Your task to perform on an android device: Go to display settings Image 0: 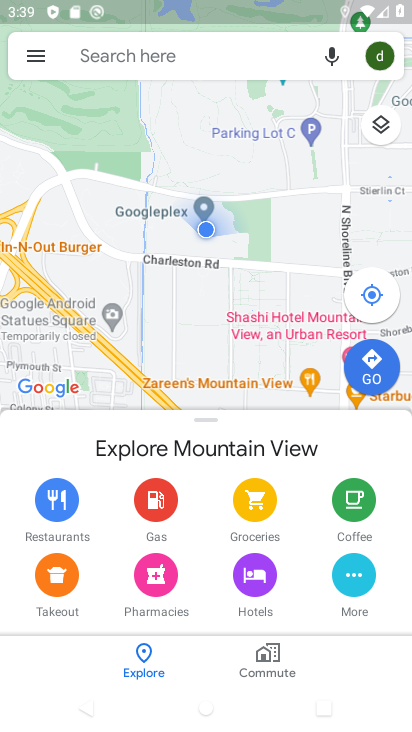
Step 0: press back button
Your task to perform on an android device: Go to display settings Image 1: 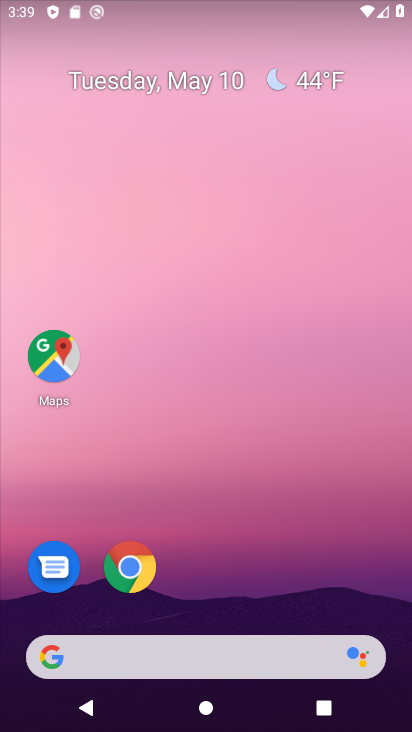
Step 1: drag from (263, 529) to (210, 111)
Your task to perform on an android device: Go to display settings Image 2: 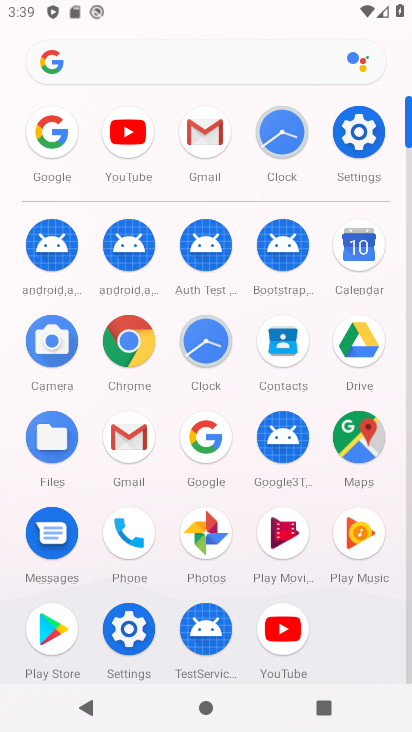
Step 2: click (361, 130)
Your task to perform on an android device: Go to display settings Image 3: 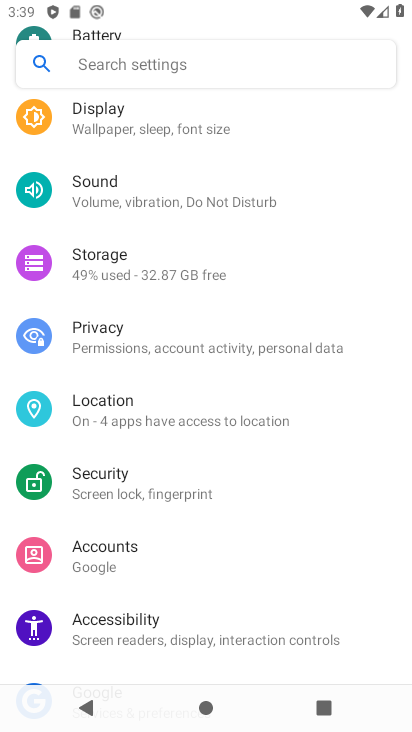
Step 3: click (119, 123)
Your task to perform on an android device: Go to display settings Image 4: 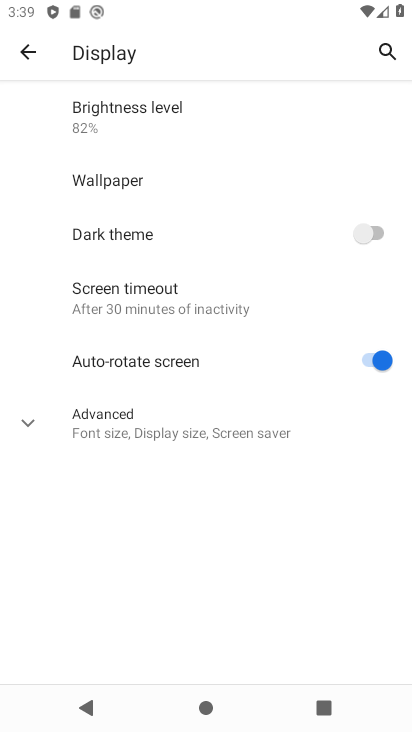
Step 4: task complete